Your task to perform on an android device: empty trash in the gmail app Image 0: 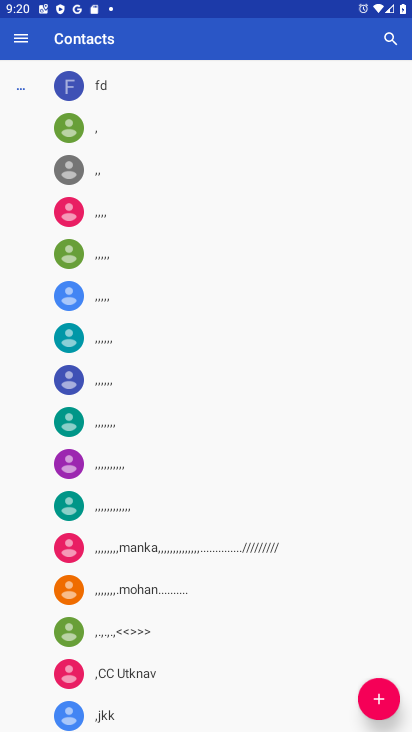
Step 0: press home button
Your task to perform on an android device: empty trash in the gmail app Image 1: 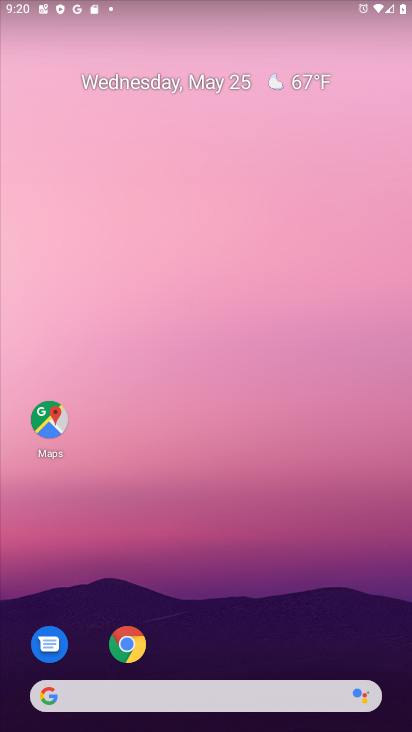
Step 1: drag from (201, 654) to (233, 148)
Your task to perform on an android device: empty trash in the gmail app Image 2: 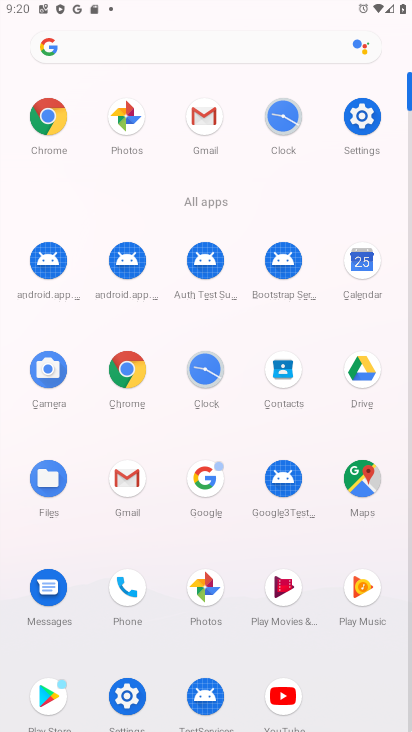
Step 2: click (125, 473)
Your task to perform on an android device: empty trash in the gmail app Image 3: 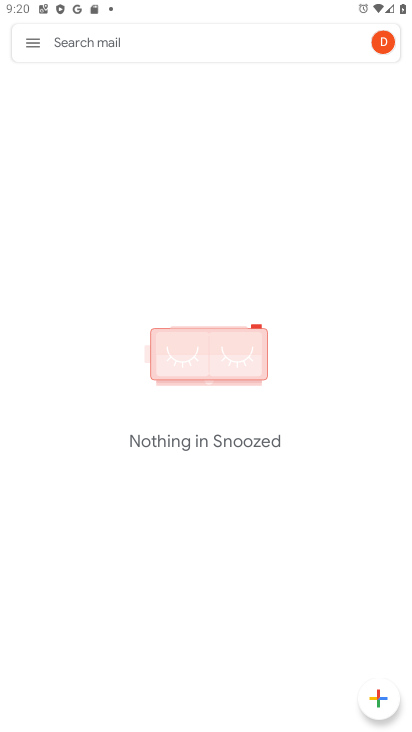
Step 3: click (29, 36)
Your task to perform on an android device: empty trash in the gmail app Image 4: 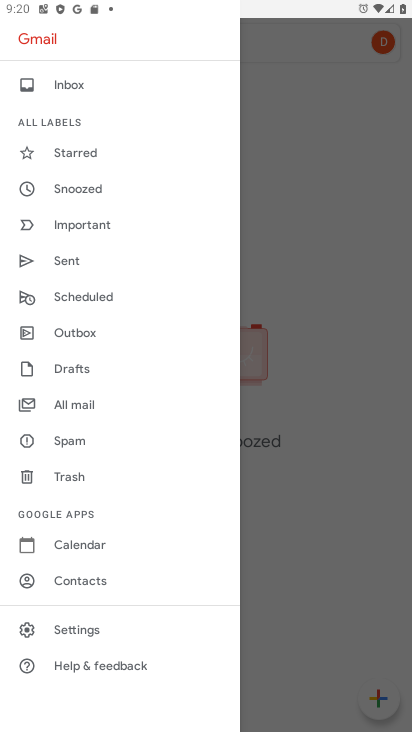
Step 4: click (92, 478)
Your task to perform on an android device: empty trash in the gmail app Image 5: 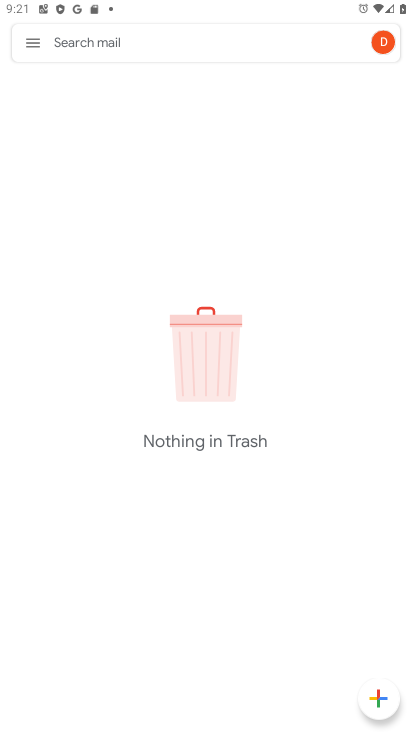
Step 5: task complete